Your task to perform on an android device: change keyboard looks Image 0: 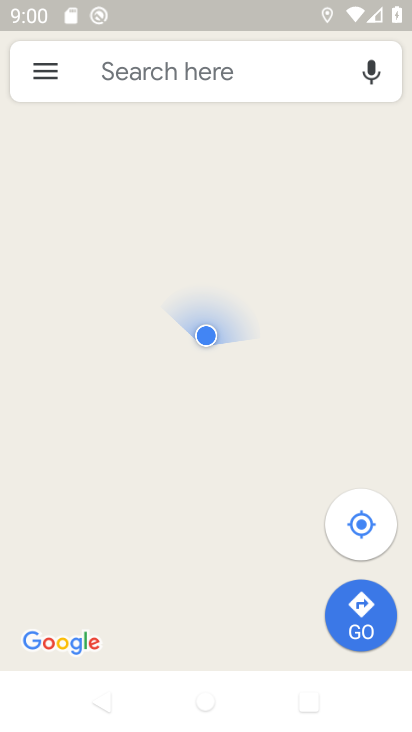
Step 0: press home button
Your task to perform on an android device: change keyboard looks Image 1: 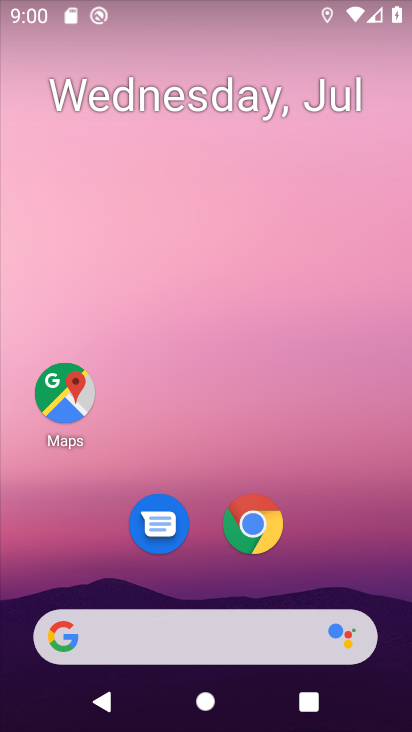
Step 1: drag from (329, 547) to (293, 72)
Your task to perform on an android device: change keyboard looks Image 2: 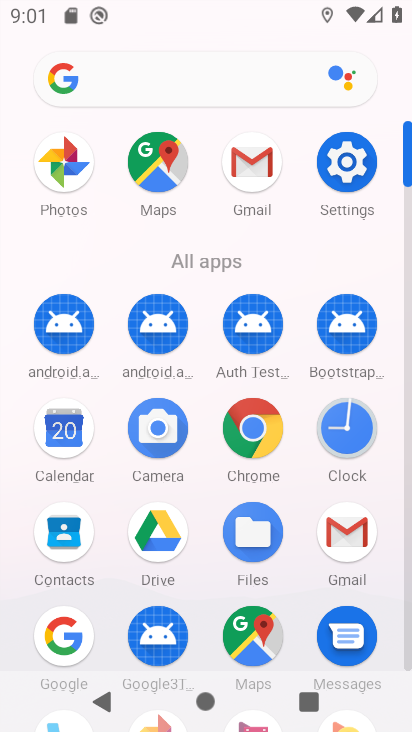
Step 2: click (345, 158)
Your task to perform on an android device: change keyboard looks Image 3: 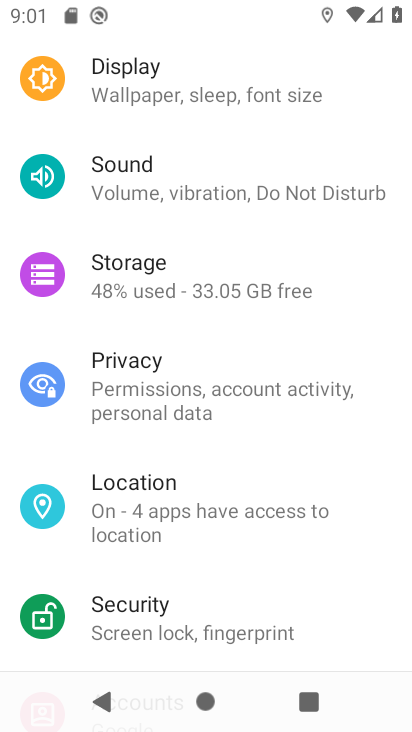
Step 3: drag from (267, 538) to (232, 52)
Your task to perform on an android device: change keyboard looks Image 4: 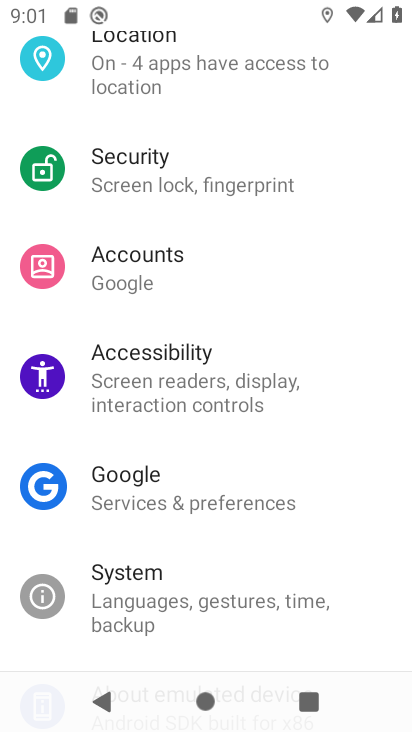
Step 4: click (236, 582)
Your task to perform on an android device: change keyboard looks Image 5: 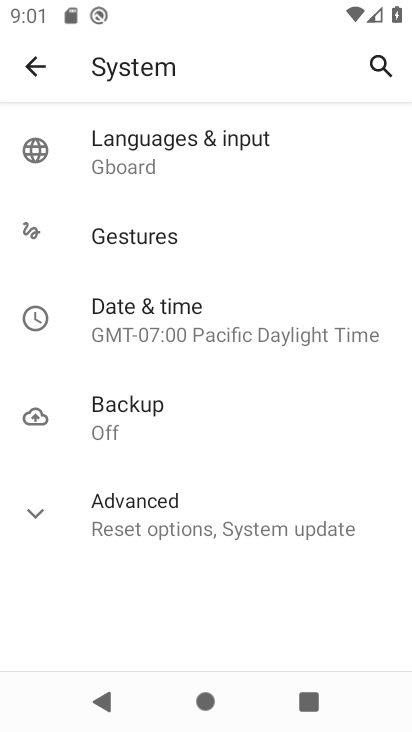
Step 5: click (160, 150)
Your task to perform on an android device: change keyboard looks Image 6: 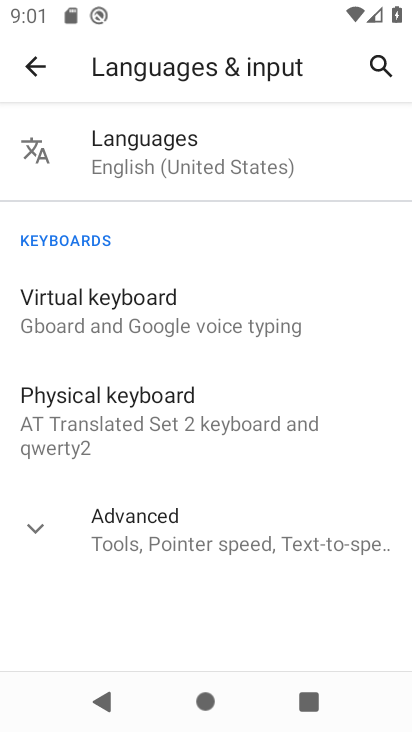
Step 6: click (138, 309)
Your task to perform on an android device: change keyboard looks Image 7: 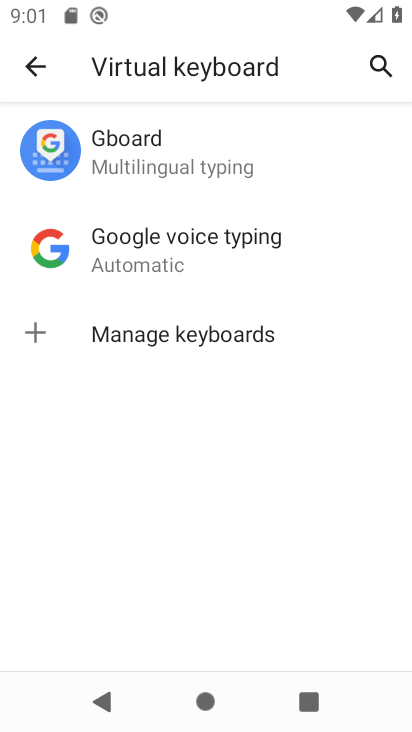
Step 7: click (171, 151)
Your task to perform on an android device: change keyboard looks Image 8: 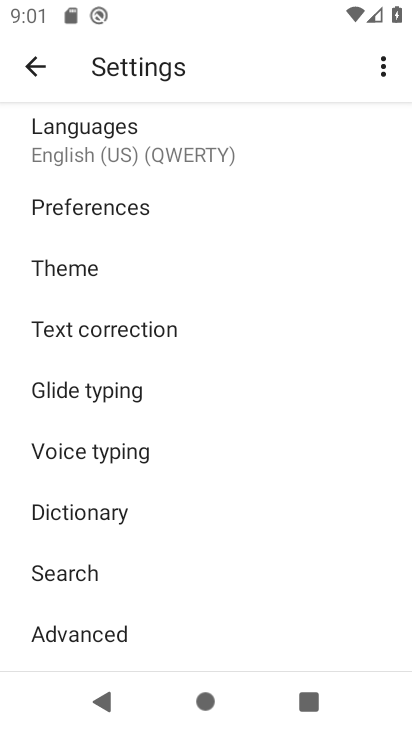
Step 8: click (97, 264)
Your task to perform on an android device: change keyboard looks Image 9: 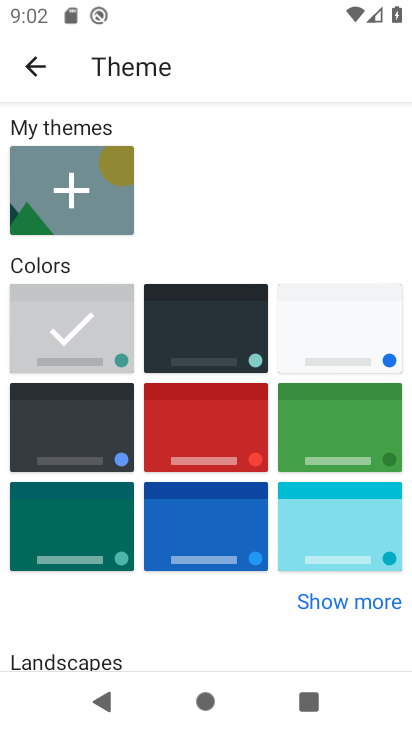
Step 9: click (231, 435)
Your task to perform on an android device: change keyboard looks Image 10: 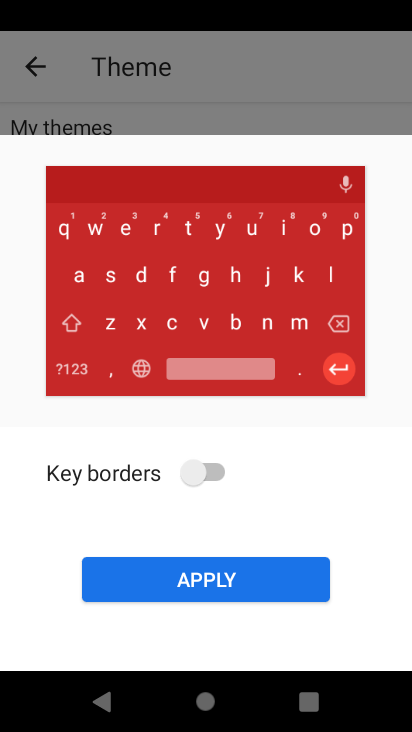
Step 10: click (208, 463)
Your task to perform on an android device: change keyboard looks Image 11: 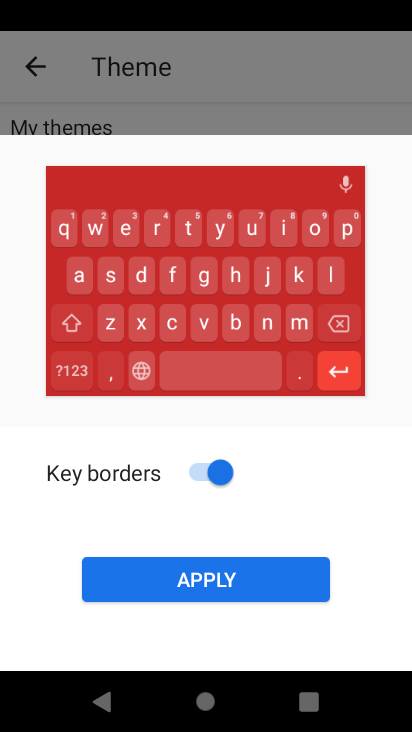
Step 11: click (233, 579)
Your task to perform on an android device: change keyboard looks Image 12: 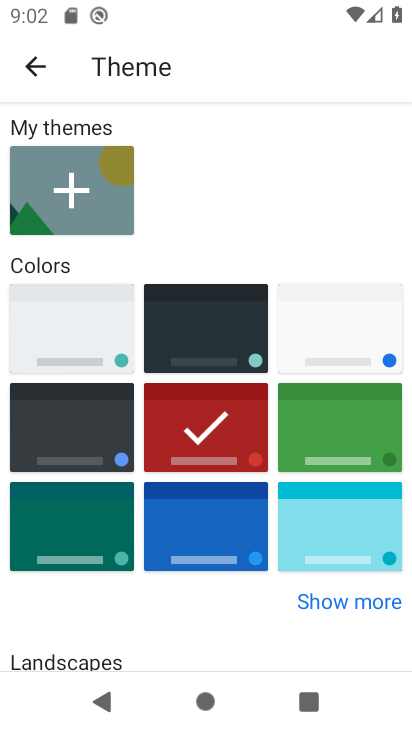
Step 12: task complete